Your task to perform on an android device: Go to display settings Image 0: 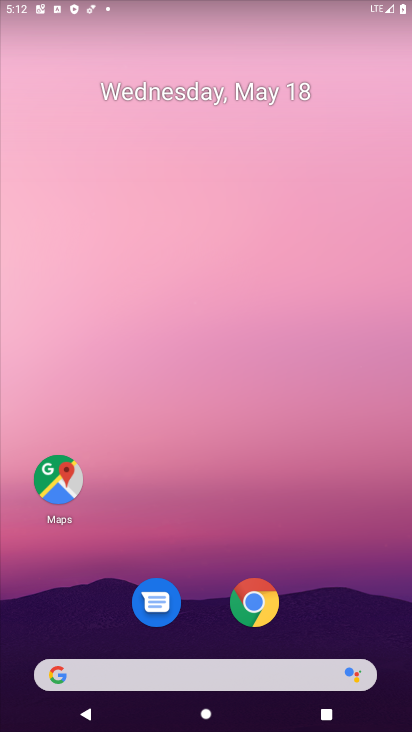
Step 0: drag from (288, 689) to (340, 107)
Your task to perform on an android device: Go to display settings Image 1: 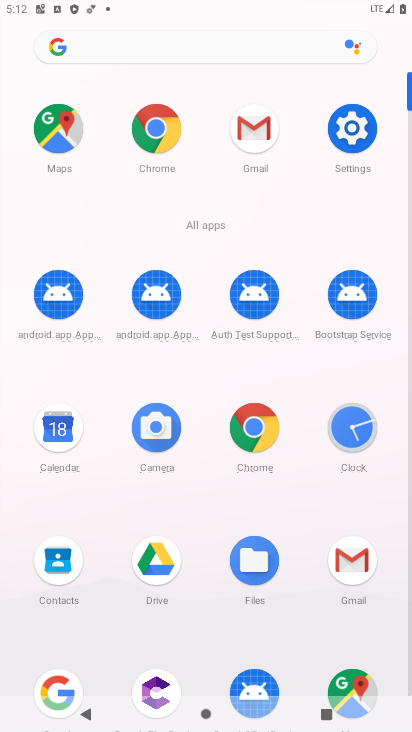
Step 1: click (365, 127)
Your task to perform on an android device: Go to display settings Image 2: 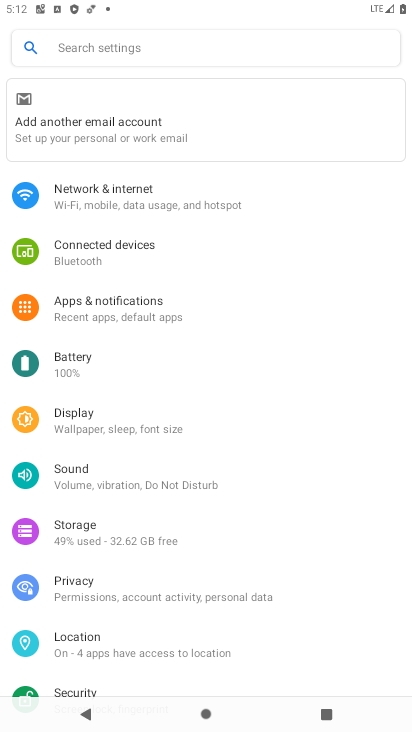
Step 2: click (117, 423)
Your task to perform on an android device: Go to display settings Image 3: 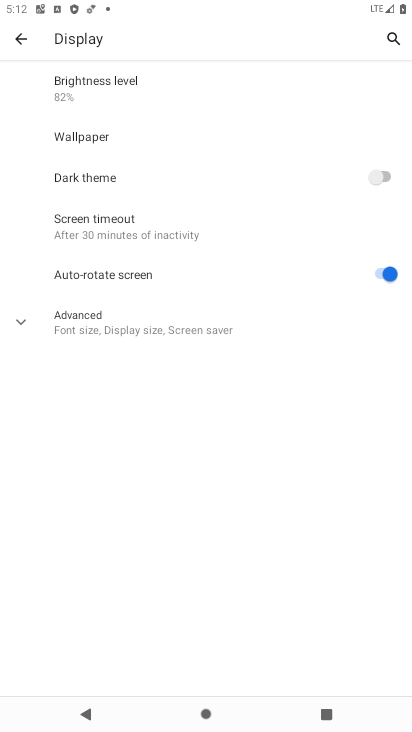
Step 3: task complete